Your task to perform on an android device: find snoozed emails in the gmail app Image 0: 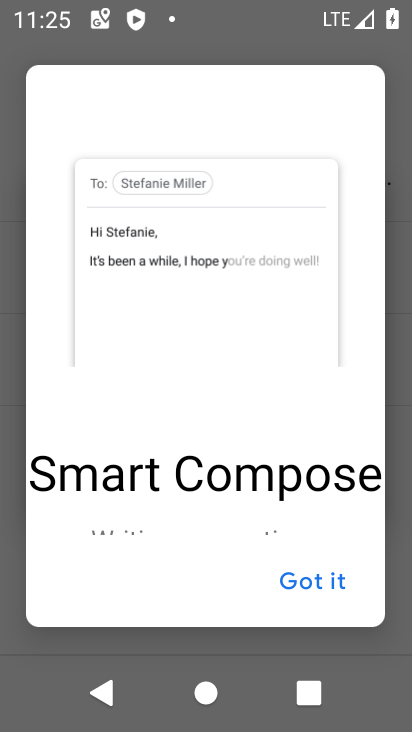
Step 0: press home button
Your task to perform on an android device: find snoozed emails in the gmail app Image 1: 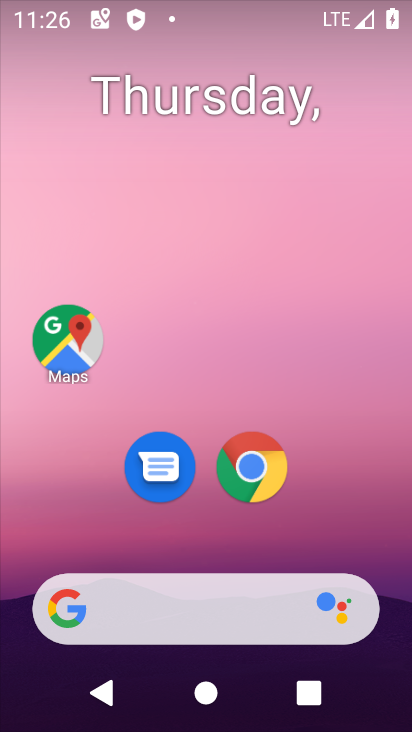
Step 1: drag from (209, 515) to (300, 23)
Your task to perform on an android device: find snoozed emails in the gmail app Image 2: 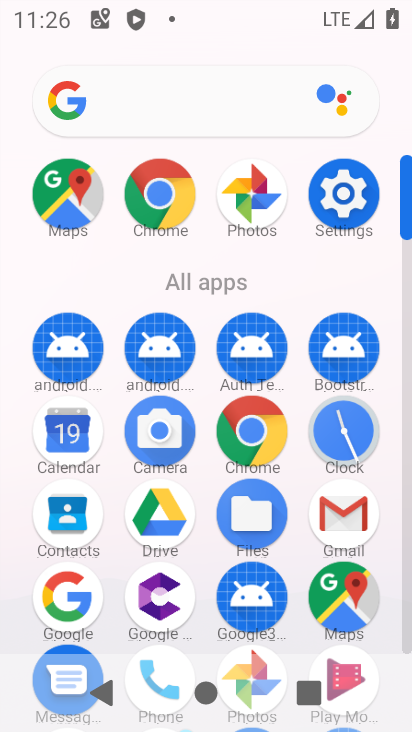
Step 2: click (341, 507)
Your task to perform on an android device: find snoozed emails in the gmail app Image 3: 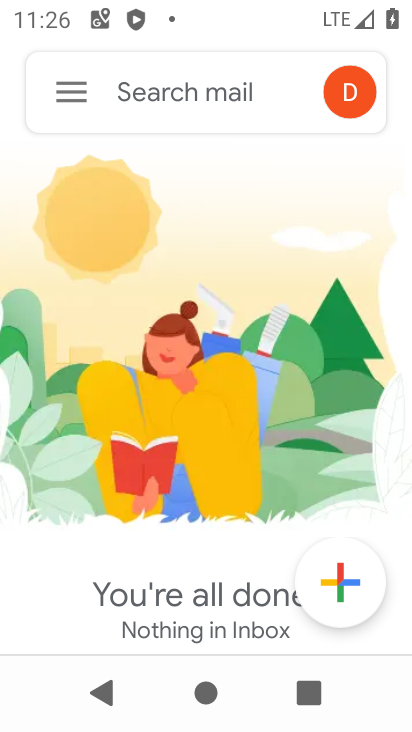
Step 3: click (57, 88)
Your task to perform on an android device: find snoozed emails in the gmail app Image 4: 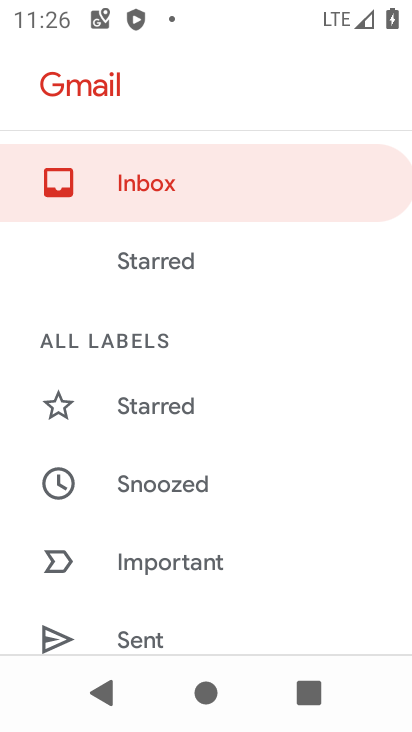
Step 4: click (144, 484)
Your task to perform on an android device: find snoozed emails in the gmail app Image 5: 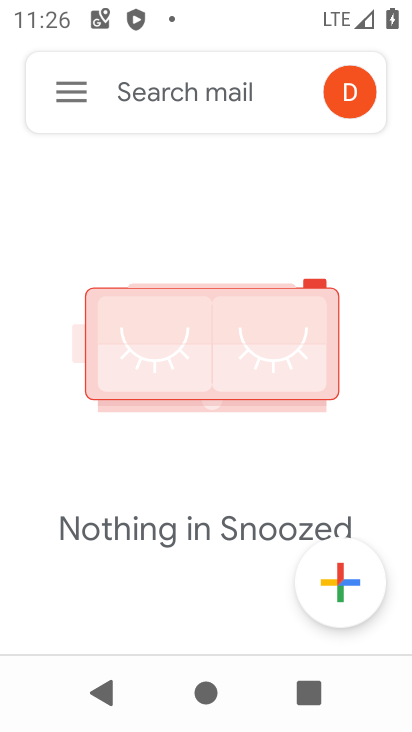
Step 5: task complete